Your task to perform on an android device: turn pop-ups off in chrome Image 0: 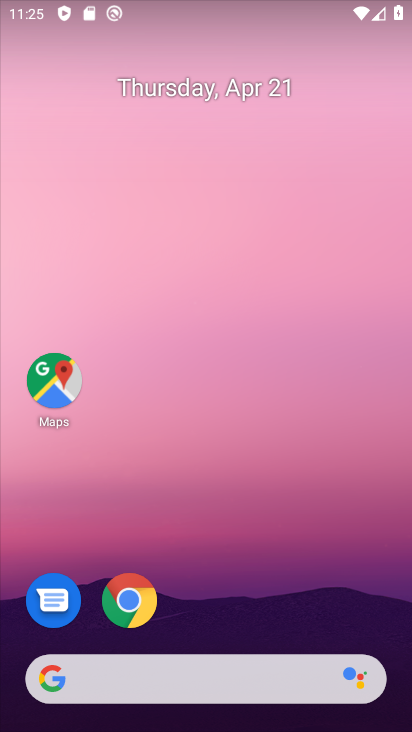
Step 0: click (142, 618)
Your task to perform on an android device: turn pop-ups off in chrome Image 1: 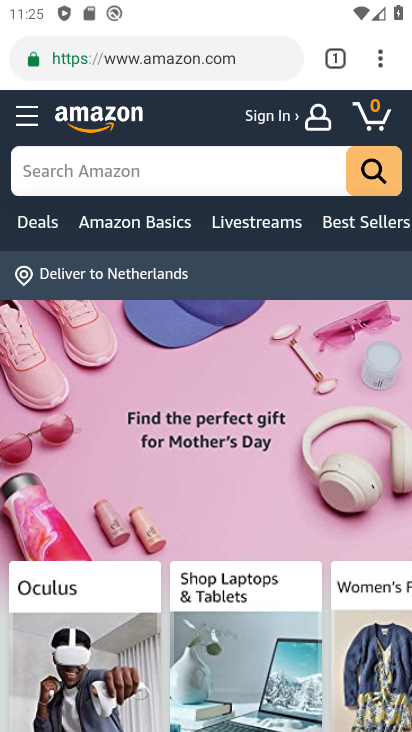
Step 1: drag from (379, 64) to (186, 632)
Your task to perform on an android device: turn pop-ups off in chrome Image 2: 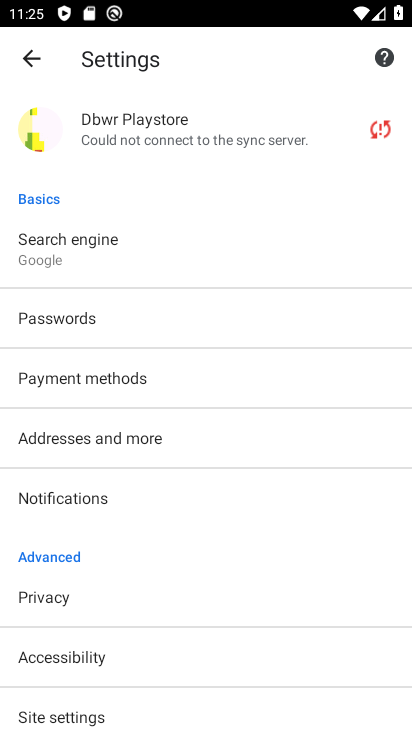
Step 2: drag from (148, 625) to (147, 288)
Your task to perform on an android device: turn pop-ups off in chrome Image 3: 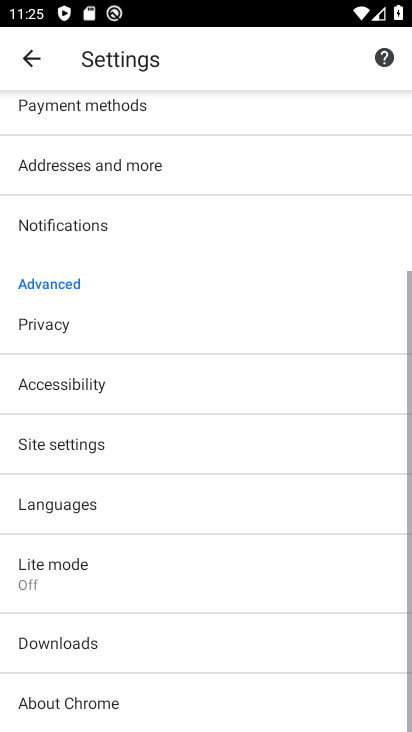
Step 3: click (86, 456)
Your task to perform on an android device: turn pop-ups off in chrome Image 4: 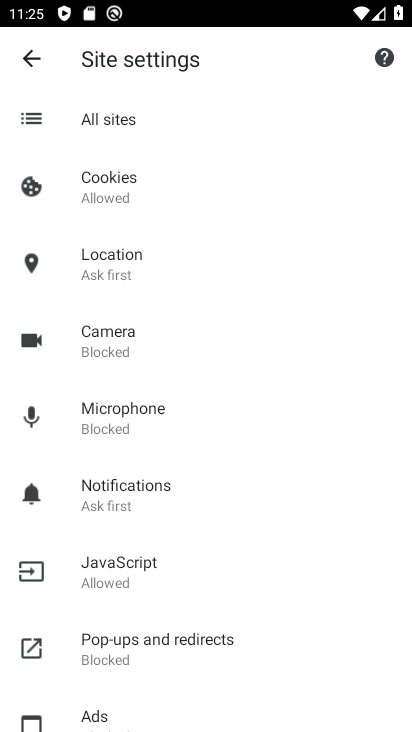
Step 4: click (172, 656)
Your task to perform on an android device: turn pop-ups off in chrome Image 5: 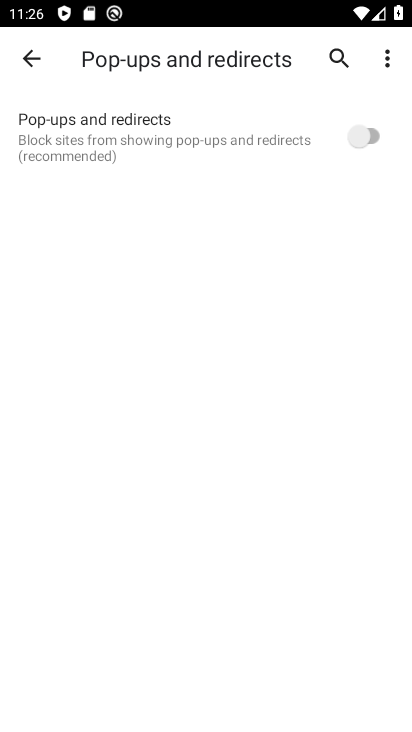
Step 5: task complete